Your task to perform on an android device: move an email to a new category in the gmail app Image 0: 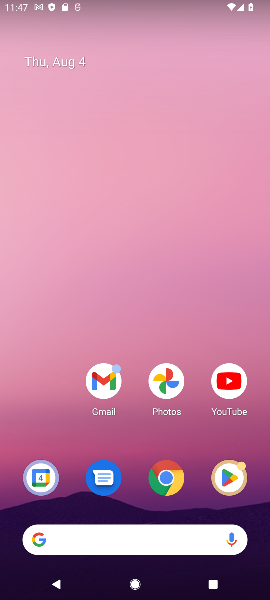
Step 0: click (105, 381)
Your task to perform on an android device: move an email to a new category in the gmail app Image 1: 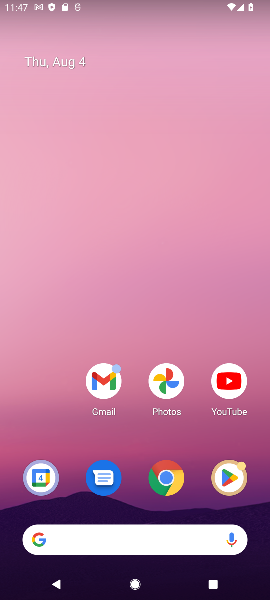
Step 1: click (105, 381)
Your task to perform on an android device: move an email to a new category in the gmail app Image 2: 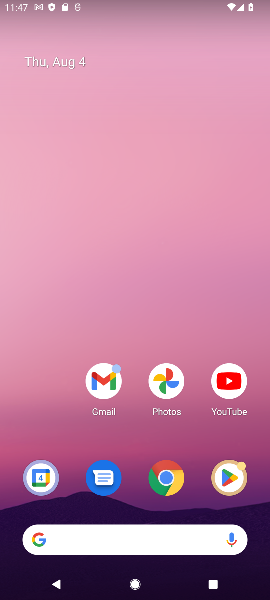
Step 2: click (105, 381)
Your task to perform on an android device: move an email to a new category in the gmail app Image 3: 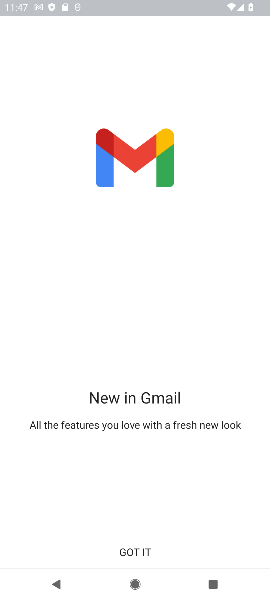
Step 3: click (138, 550)
Your task to perform on an android device: move an email to a new category in the gmail app Image 4: 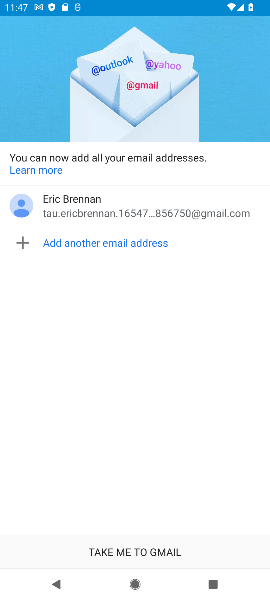
Step 4: click (138, 550)
Your task to perform on an android device: move an email to a new category in the gmail app Image 5: 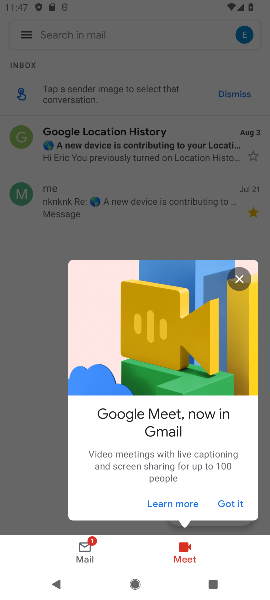
Step 5: click (245, 275)
Your task to perform on an android device: move an email to a new category in the gmail app Image 6: 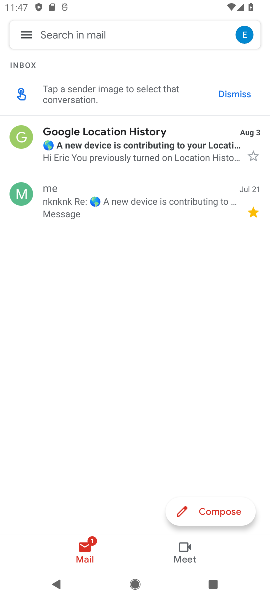
Step 6: click (20, 136)
Your task to perform on an android device: move an email to a new category in the gmail app Image 7: 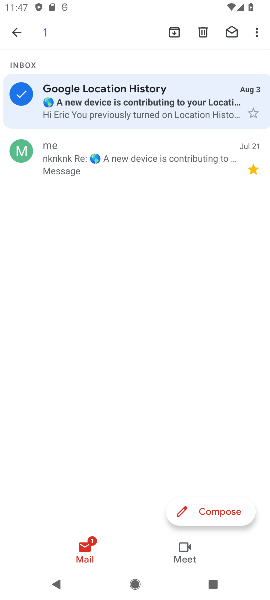
Step 7: click (252, 29)
Your task to perform on an android device: move an email to a new category in the gmail app Image 8: 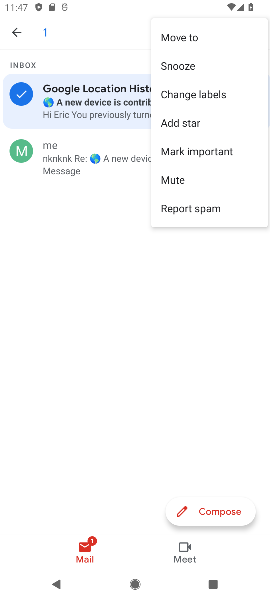
Step 8: click (92, 248)
Your task to perform on an android device: move an email to a new category in the gmail app Image 9: 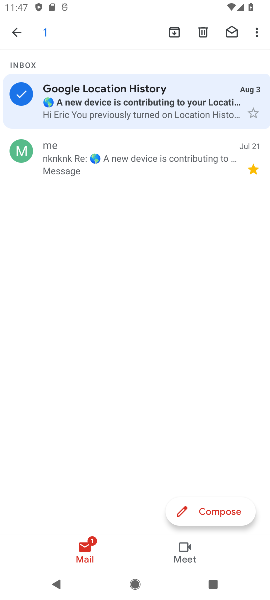
Step 9: task complete